Your task to perform on an android device: turn pop-ups on in chrome Image 0: 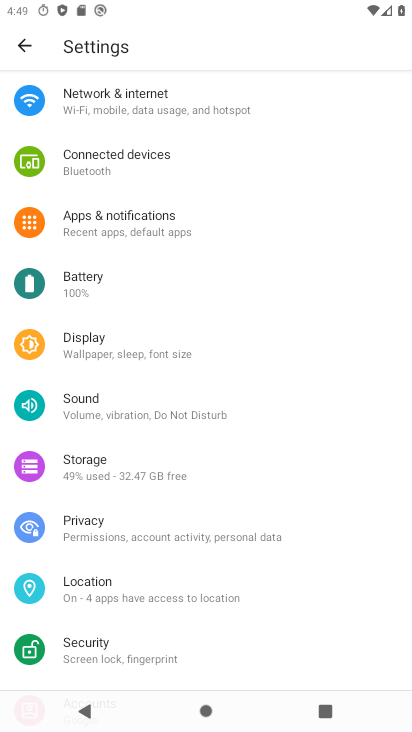
Step 0: press home button
Your task to perform on an android device: turn pop-ups on in chrome Image 1: 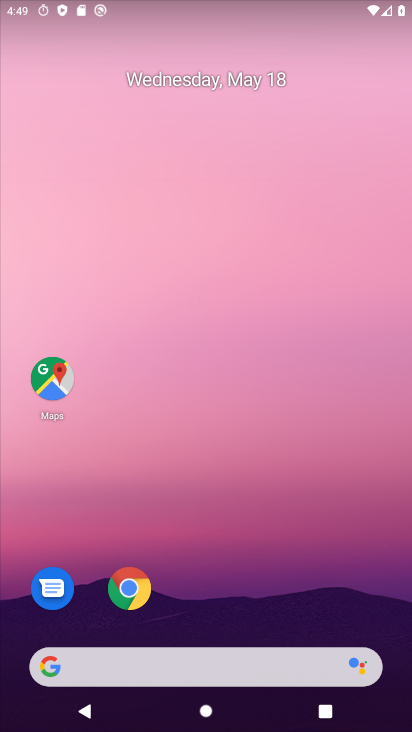
Step 1: click (124, 590)
Your task to perform on an android device: turn pop-ups on in chrome Image 2: 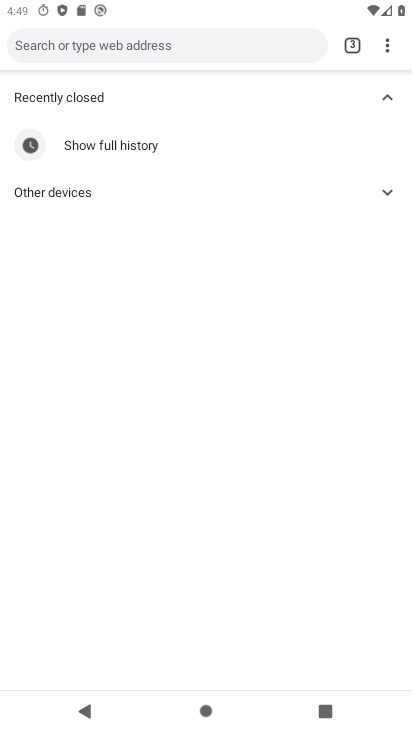
Step 2: drag from (387, 45) to (236, 378)
Your task to perform on an android device: turn pop-ups on in chrome Image 3: 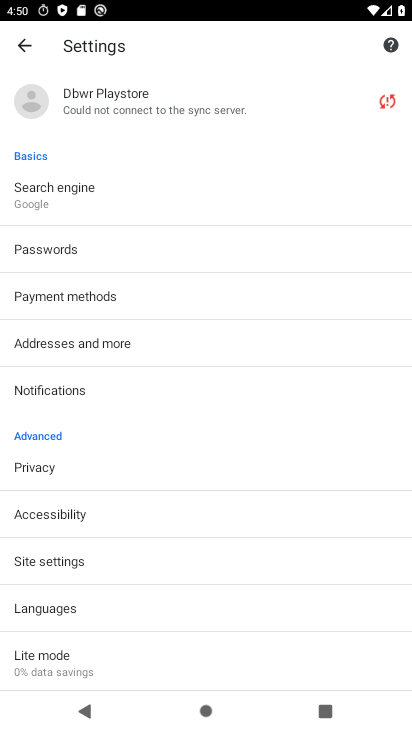
Step 3: click (44, 562)
Your task to perform on an android device: turn pop-ups on in chrome Image 4: 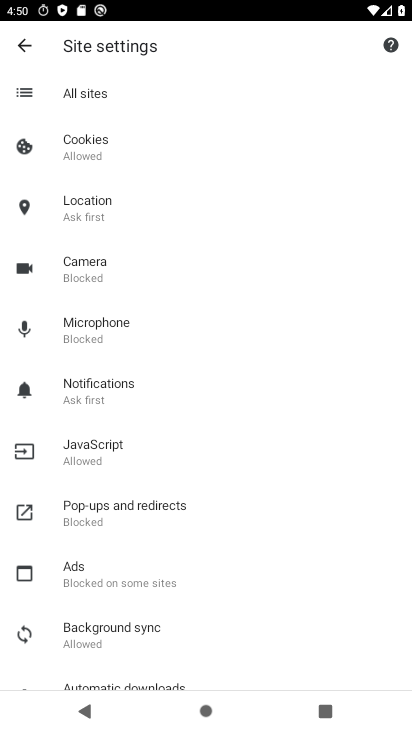
Step 4: click (106, 513)
Your task to perform on an android device: turn pop-ups on in chrome Image 5: 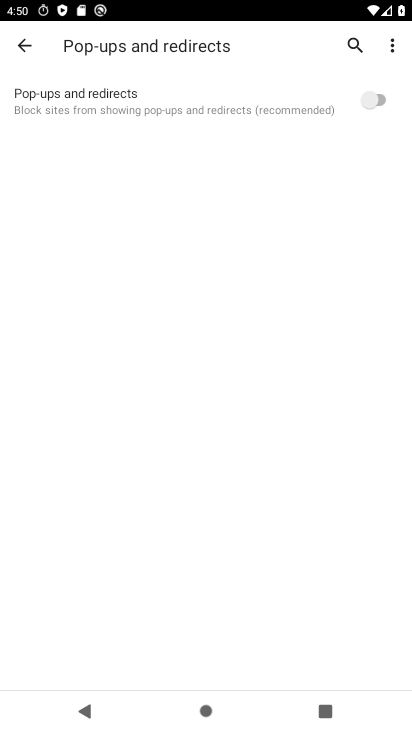
Step 5: click (383, 97)
Your task to perform on an android device: turn pop-ups on in chrome Image 6: 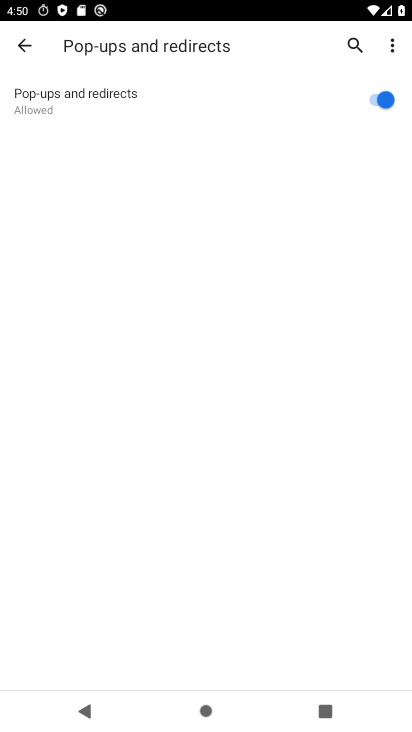
Step 6: task complete